Your task to perform on an android device: Go to settings Image 0: 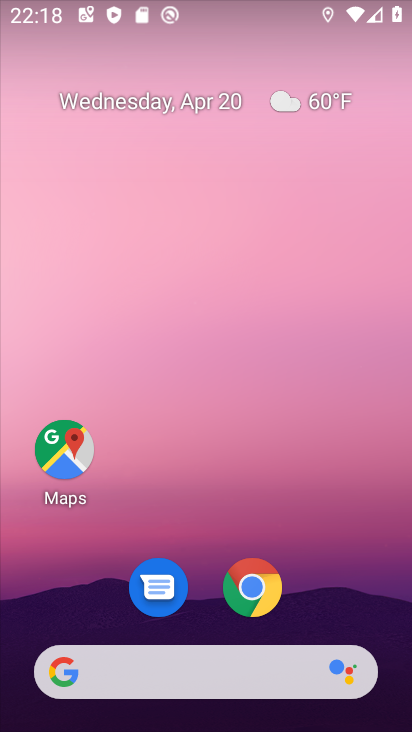
Step 0: drag from (308, 547) to (282, 172)
Your task to perform on an android device: Go to settings Image 1: 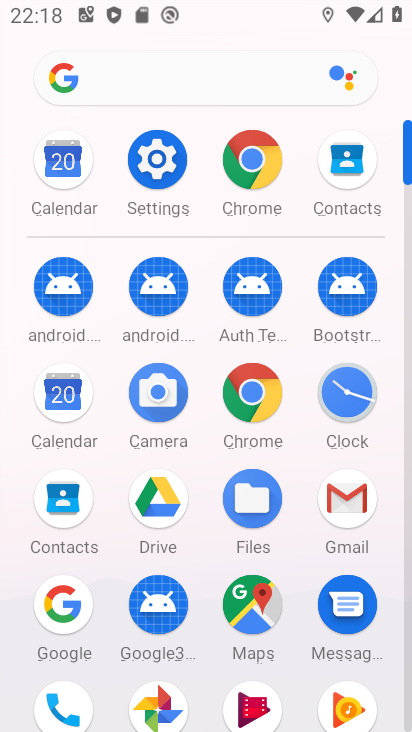
Step 1: click (152, 158)
Your task to perform on an android device: Go to settings Image 2: 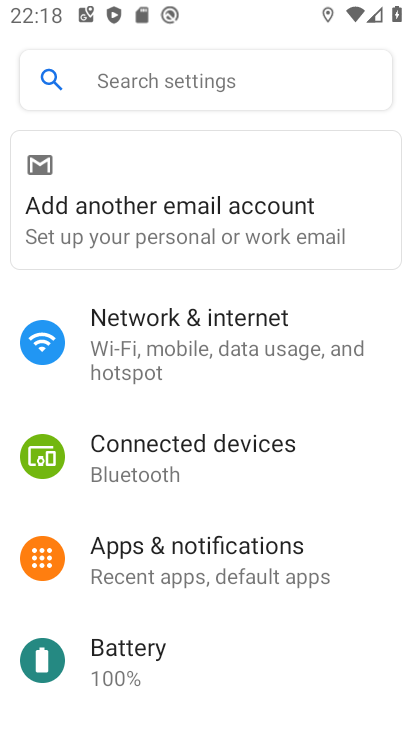
Step 2: task complete